Your task to perform on an android device: Is it going to rain tomorrow? Image 0: 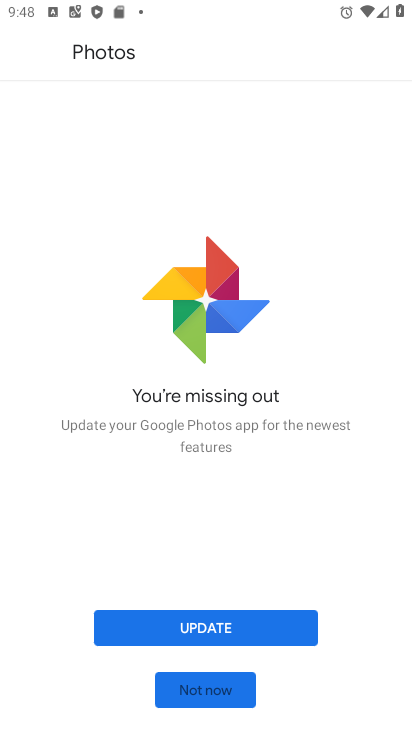
Step 0: press home button
Your task to perform on an android device: Is it going to rain tomorrow? Image 1: 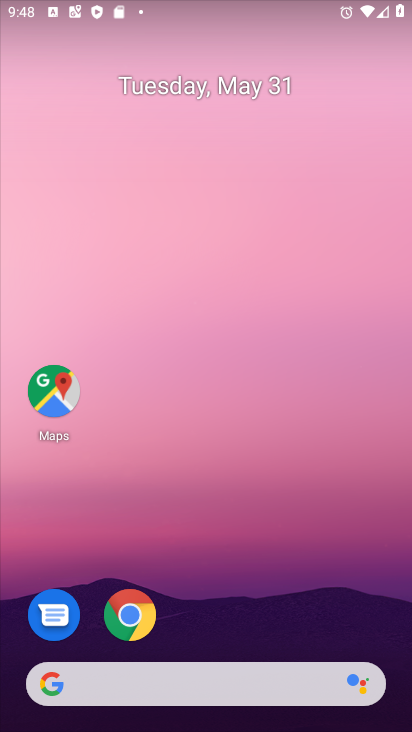
Step 1: drag from (8, 265) to (395, 289)
Your task to perform on an android device: Is it going to rain tomorrow? Image 2: 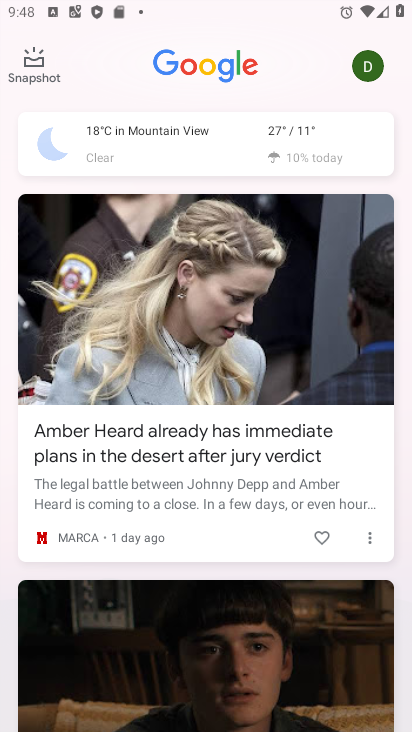
Step 2: click (291, 132)
Your task to perform on an android device: Is it going to rain tomorrow? Image 3: 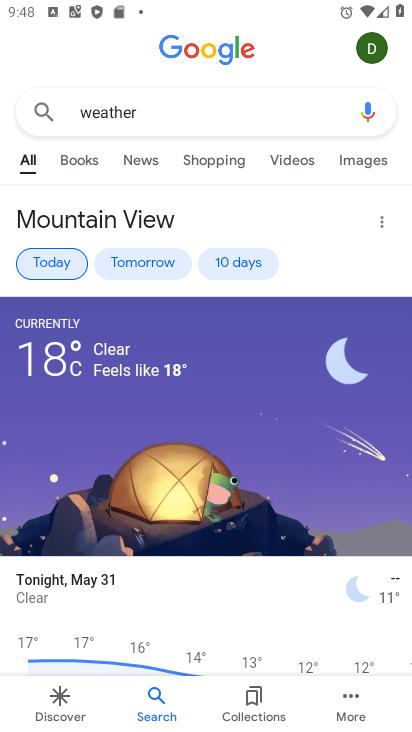
Step 3: click (140, 262)
Your task to perform on an android device: Is it going to rain tomorrow? Image 4: 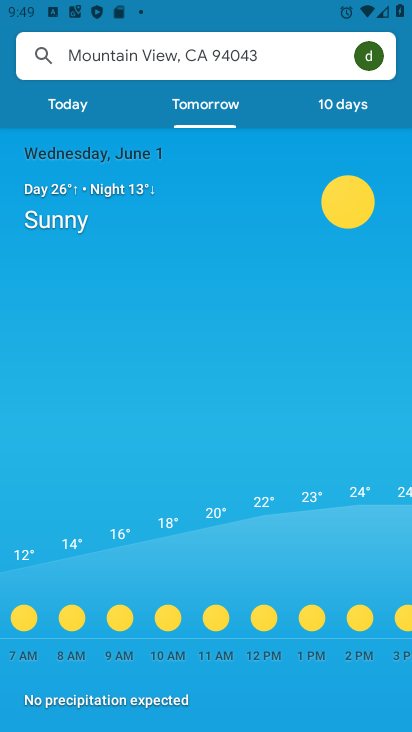
Step 4: task complete